Your task to perform on an android device: turn off sleep mode Image 0: 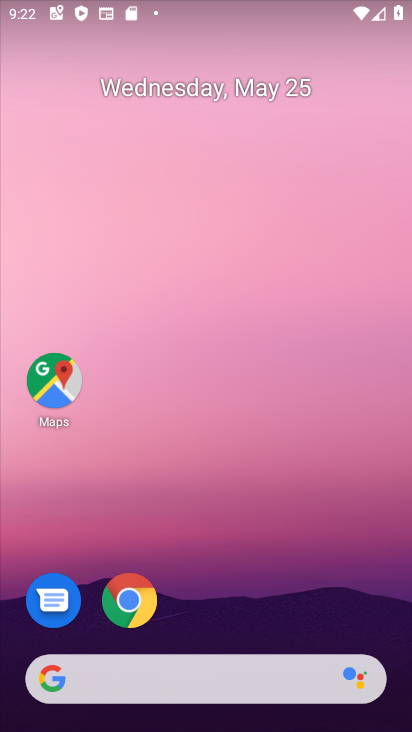
Step 0: drag from (241, 569) to (165, 52)
Your task to perform on an android device: turn off sleep mode Image 1: 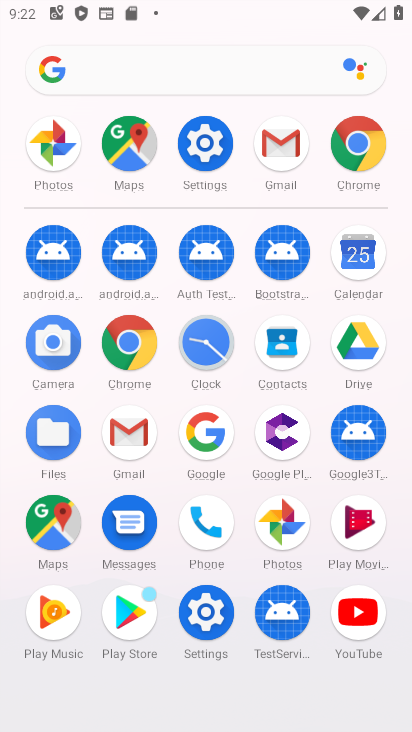
Step 1: drag from (2, 593) to (18, 273)
Your task to perform on an android device: turn off sleep mode Image 2: 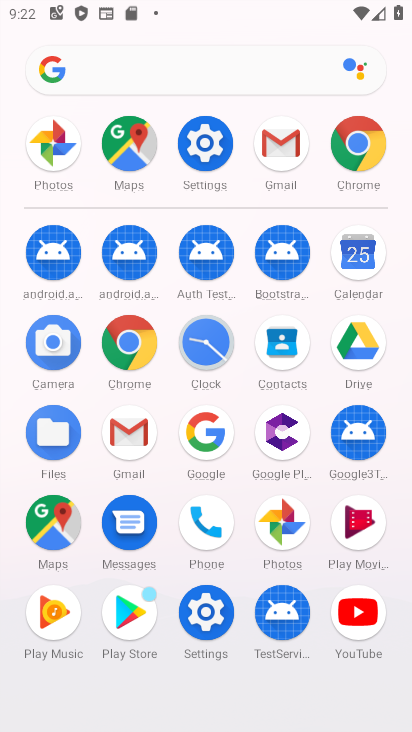
Step 2: click (204, 610)
Your task to perform on an android device: turn off sleep mode Image 3: 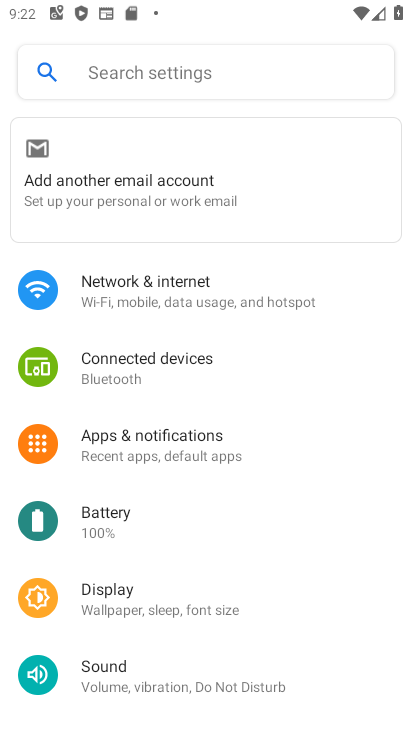
Step 3: click (228, 286)
Your task to perform on an android device: turn off sleep mode Image 4: 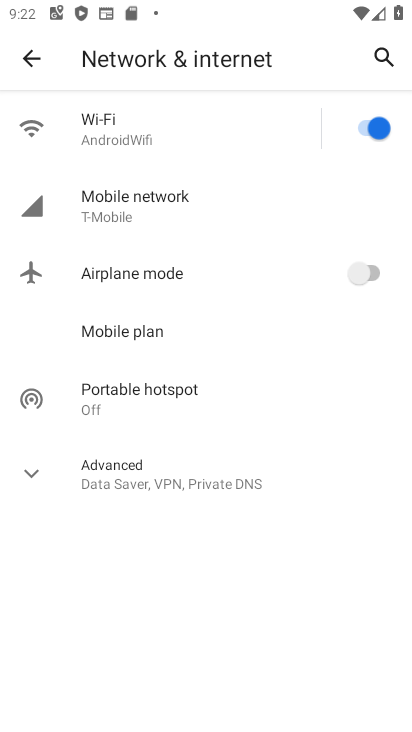
Step 4: click (49, 477)
Your task to perform on an android device: turn off sleep mode Image 5: 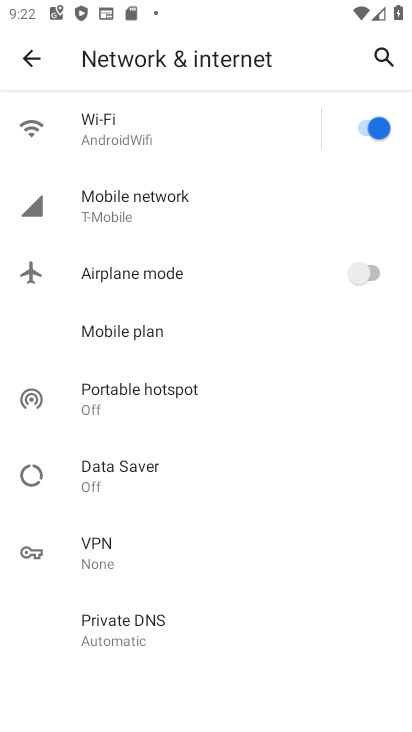
Step 5: task complete